Your task to perform on an android device: toggle javascript in the chrome app Image 0: 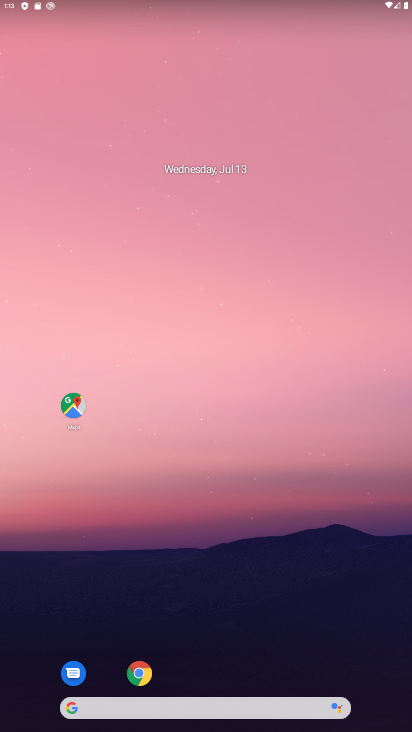
Step 0: drag from (218, 687) to (140, 120)
Your task to perform on an android device: toggle javascript in the chrome app Image 1: 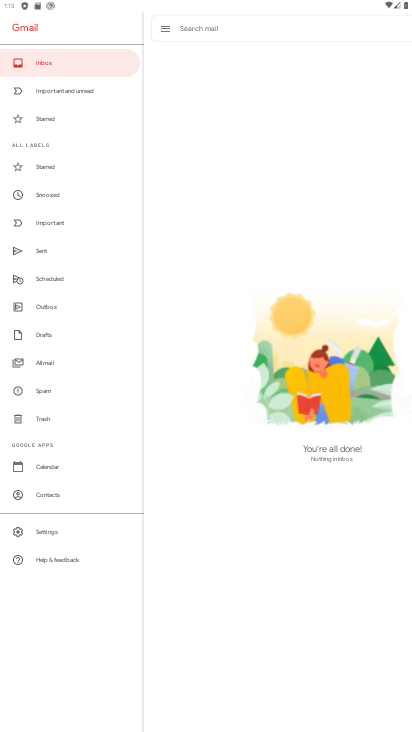
Step 1: press home button
Your task to perform on an android device: toggle javascript in the chrome app Image 2: 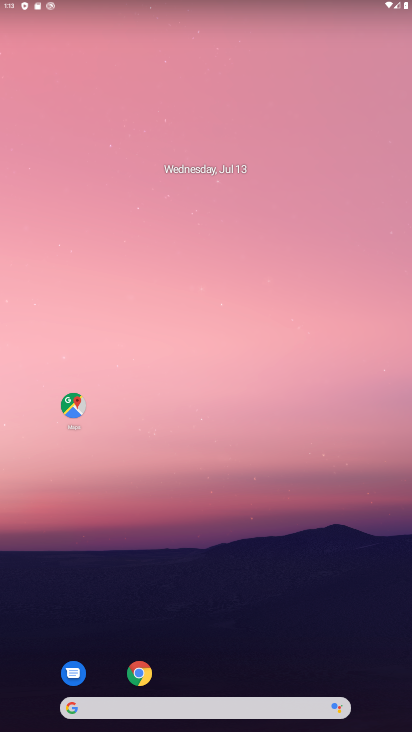
Step 2: drag from (209, 678) to (113, 63)
Your task to perform on an android device: toggle javascript in the chrome app Image 3: 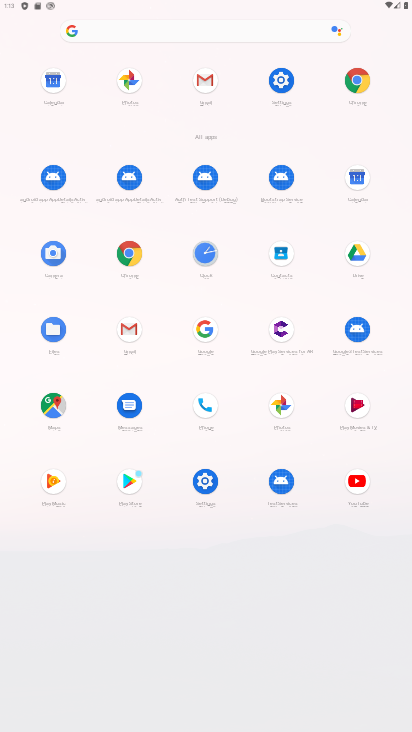
Step 3: drag from (274, 83) to (262, 3)
Your task to perform on an android device: toggle javascript in the chrome app Image 4: 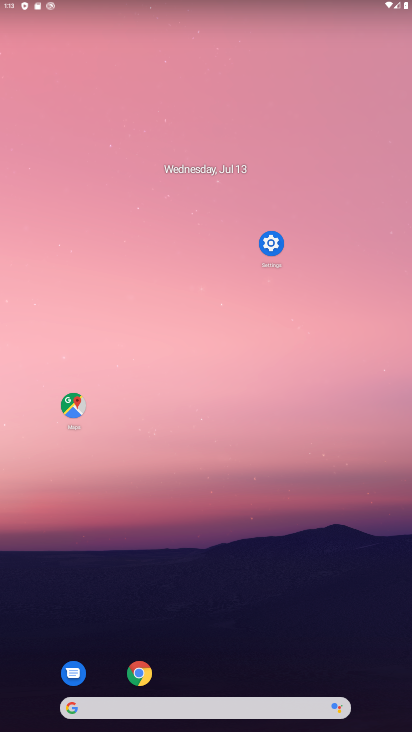
Step 4: drag from (220, 556) to (183, 53)
Your task to perform on an android device: toggle javascript in the chrome app Image 5: 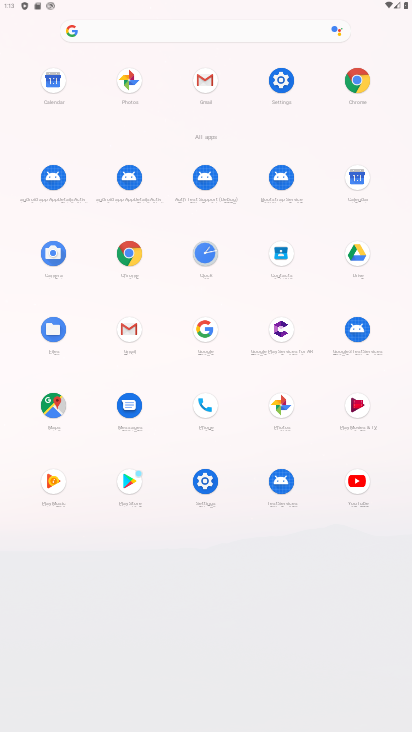
Step 5: click (356, 84)
Your task to perform on an android device: toggle javascript in the chrome app Image 6: 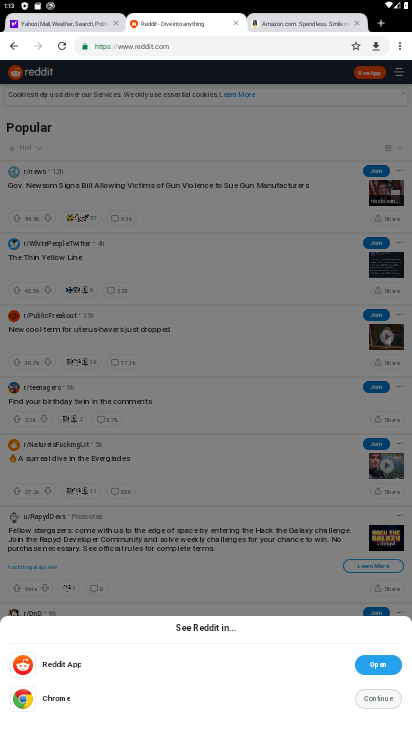
Step 6: click (400, 48)
Your task to perform on an android device: toggle javascript in the chrome app Image 7: 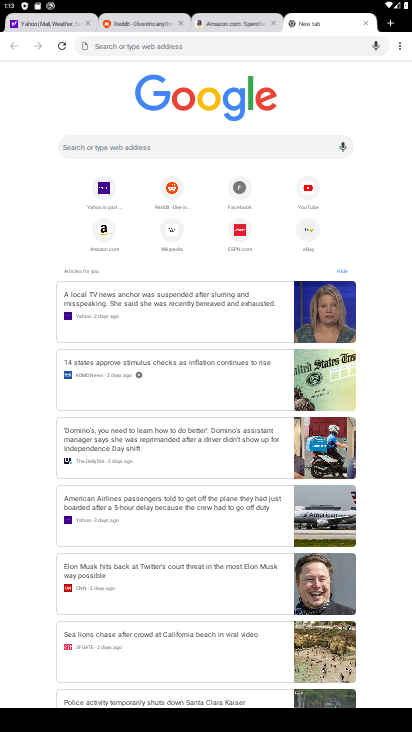
Step 7: drag from (397, 42) to (316, 206)
Your task to perform on an android device: toggle javascript in the chrome app Image 8: 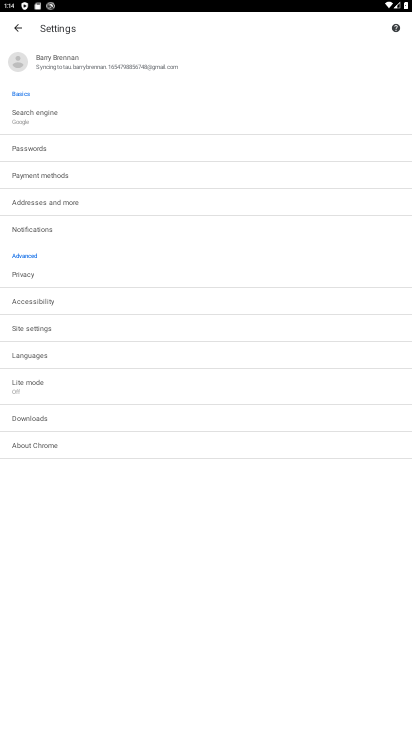
Step 8: click (40, 321)
Your task to perform on an android device: toggle javascript in the chrome app Image 9: 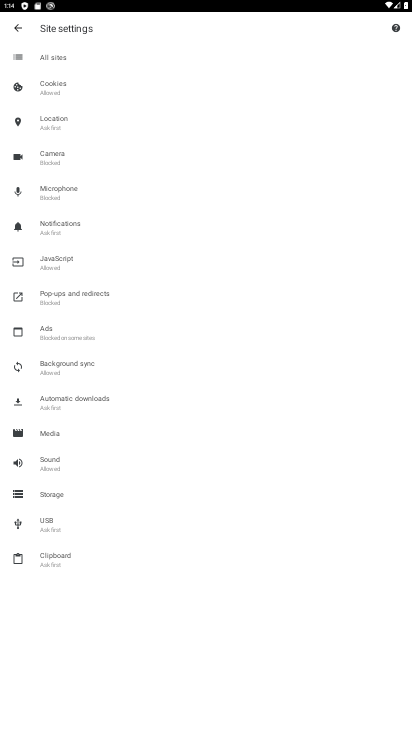
Step 9: click (49, 267)
Your task to perform on an android device: toggle javascript in the chrome app Image 10: 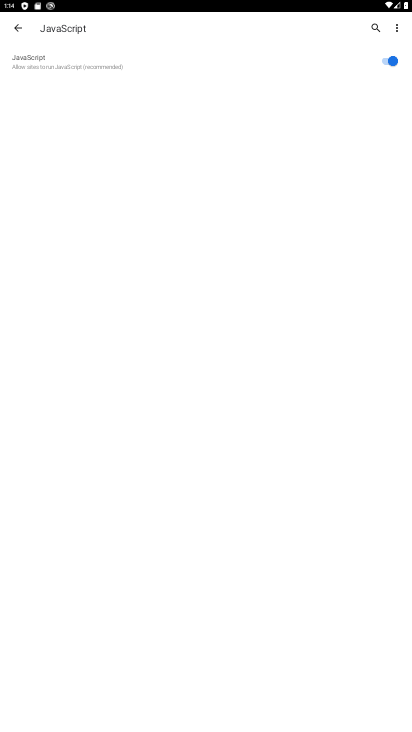
Step 10: click (386, 59)
Your task to perform on an android device: toggle javascript in the chrome app Image 11: 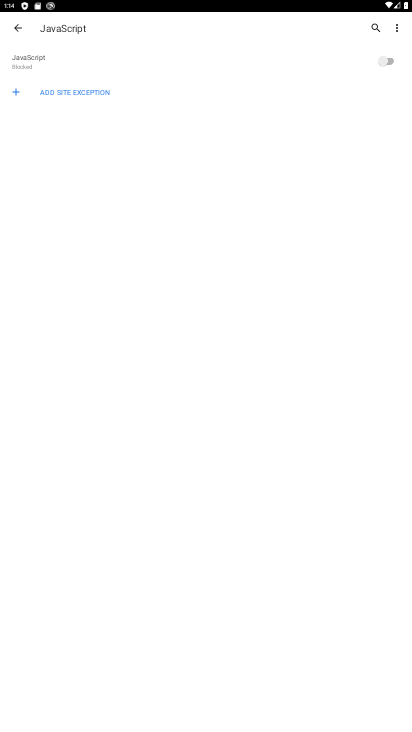
Step 11: task complete